Your task to perform on an android device: turn on wifi Image 0: 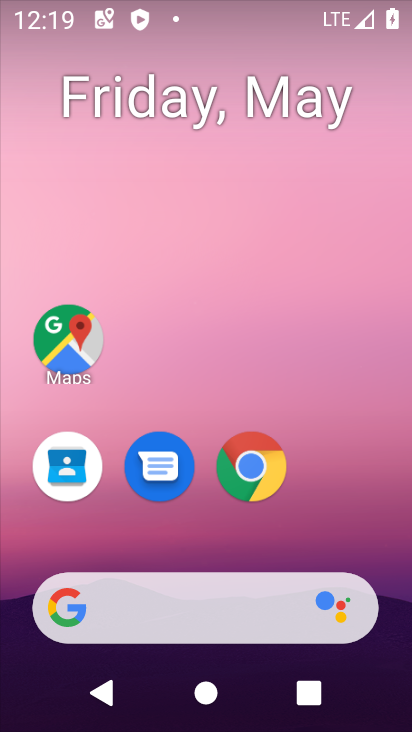
Step 0: drag from (264, 545) to (277, 1)
Your task to perform on an android device: turn on wifi Image 1: 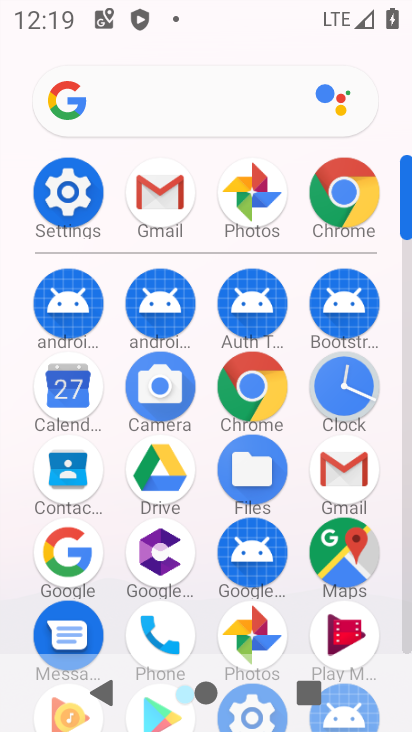
Step 1: click (61, 209)
Your task to perform on an android device: turn on wifi Image 2: 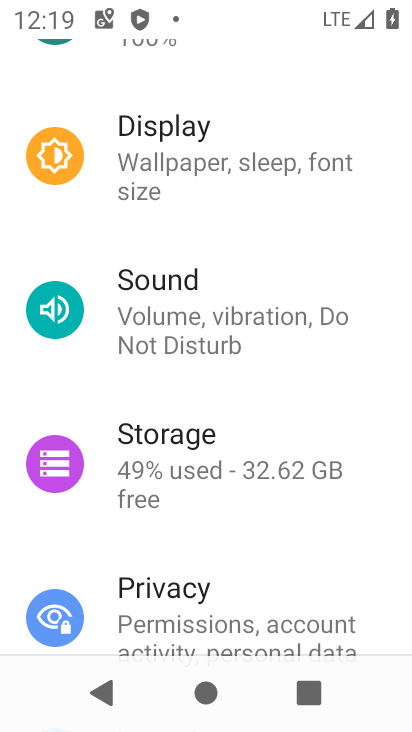
Step 2: drag from (229, 193) to (248, 607)
Your task to perform on an android device: turn on wifi Image 3: 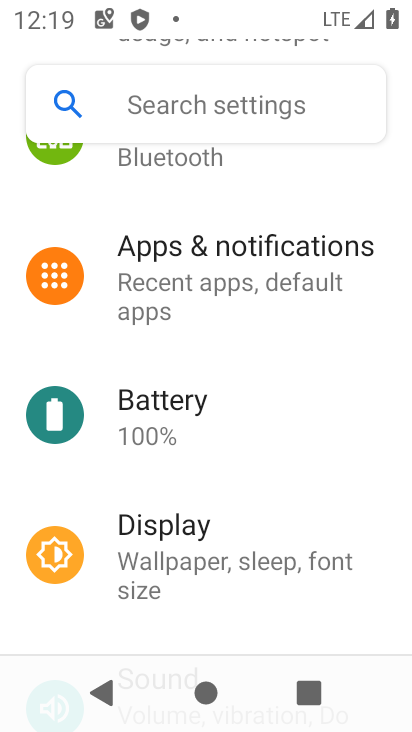
Step 3: drag from (182, 294) to (202, 711)
Your task to perform on an android device: turn on wifi Image 4: 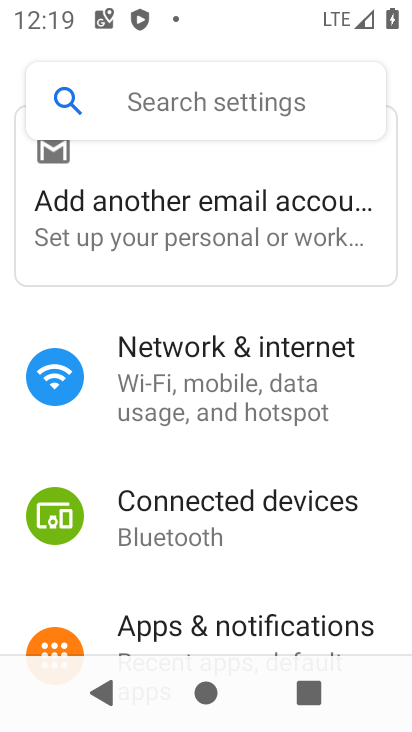
Step 4: click (238, 381)
Your task to perform on an android device: turn on wifi Image 5: 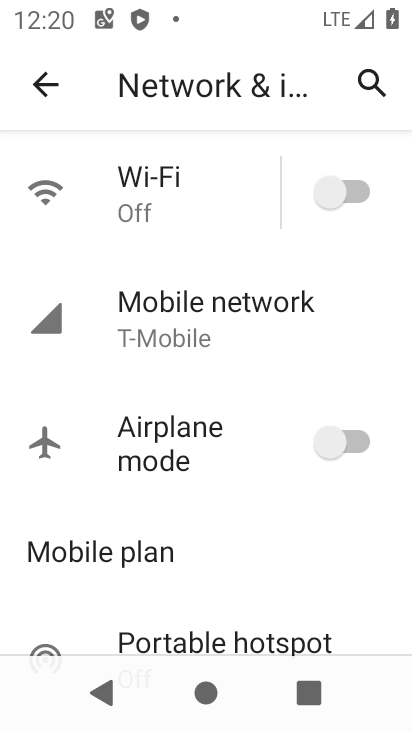
Step 5: click (358, 193)
Your task to perform on an android device: turn on wifi Image 6: 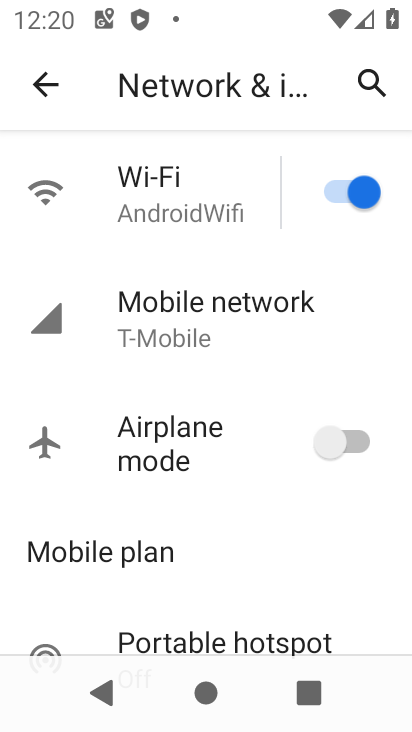
Step 6: task complete